Your task to perform on an android device: Open calendar and show me the fourth week of next month Image 0: 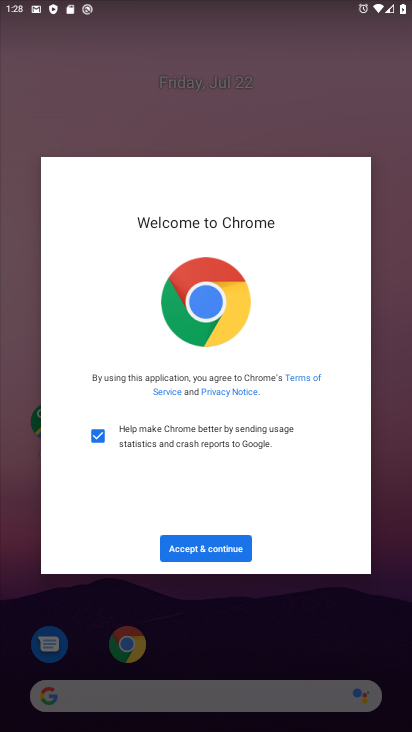
Step 0: press home button
Your task to perform on an android device: Open calendar and show me the fourth week of next month Image 1: 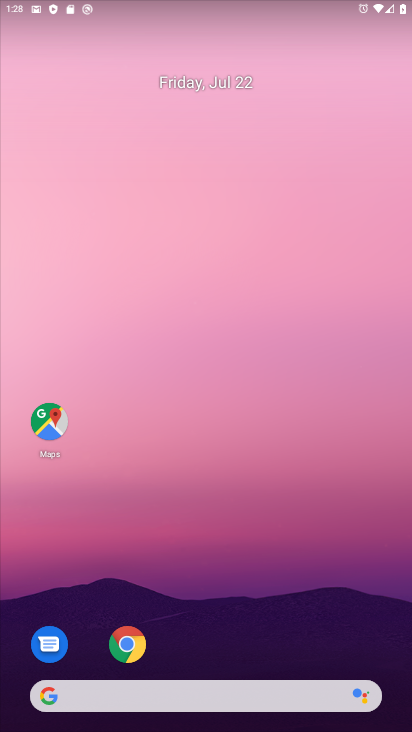
Step 1: drag from (207, 655) to (204, 148)
Your task to perform on an android device: Open calendar and show me the fourth week of next month Image 2: 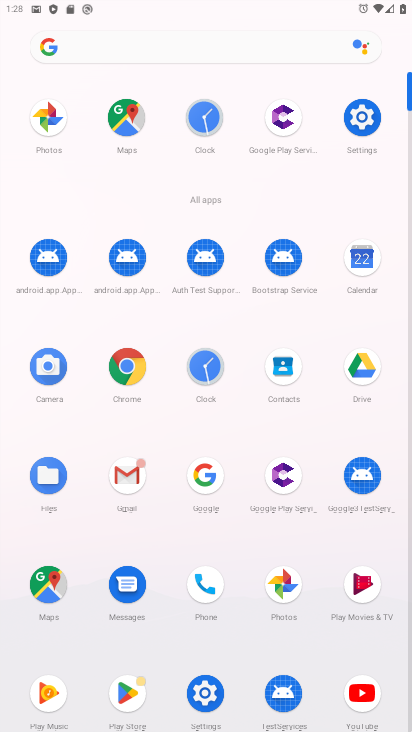
Step 2: click (368, 258)
Your task to perform on an android device: Open calendar and show me the fourth week of next month Image 3: 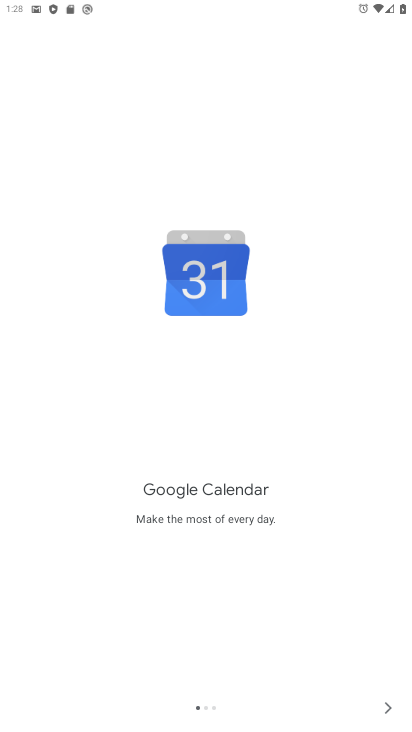
Step 3: click (386, 715)
Your task to perform on an android device: Open calendar and show me the fourth week of next month Image 4: 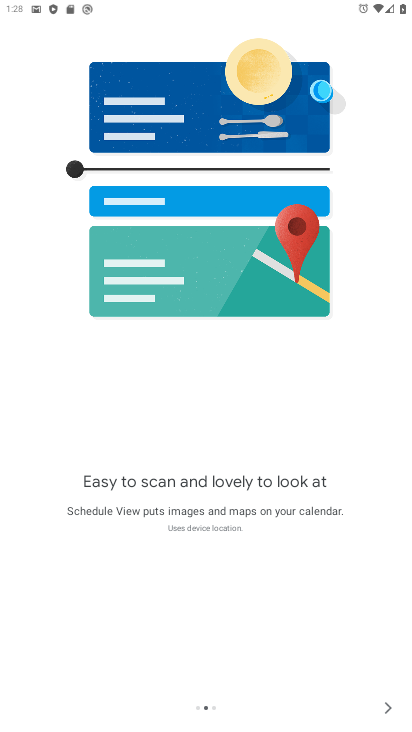
Step 4: click (381, 704)
Your task to perform on an android device: Open calendar and show me the fourth week of next month Image 5: 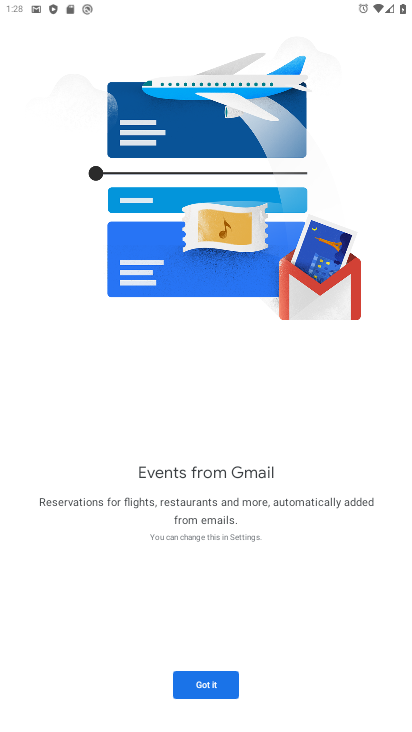
Step 5: click (211, 686)
Your task to perform on an android device: Open calendar and show me the fourth week of next month Image 6: 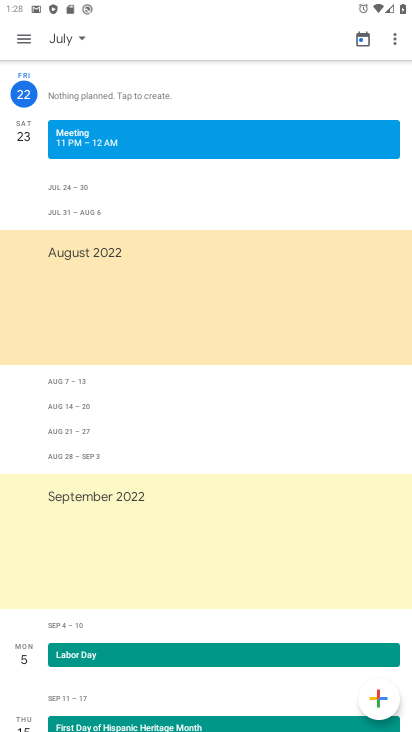
Step 6: click (72, 42)
Your task to perform on an android device: Open calendar and show me the fourth week of next month Image 7: 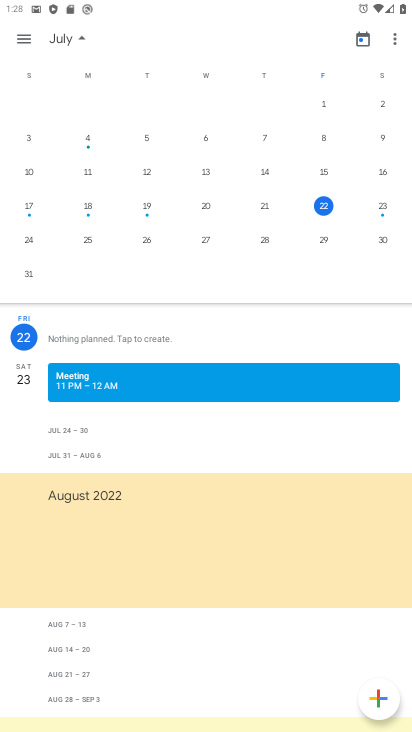
Step 7: drag from (374, 261) to (0, 253)
Your task to perform on an android device: Open calendar and show me the fourth week of next month Image 8: 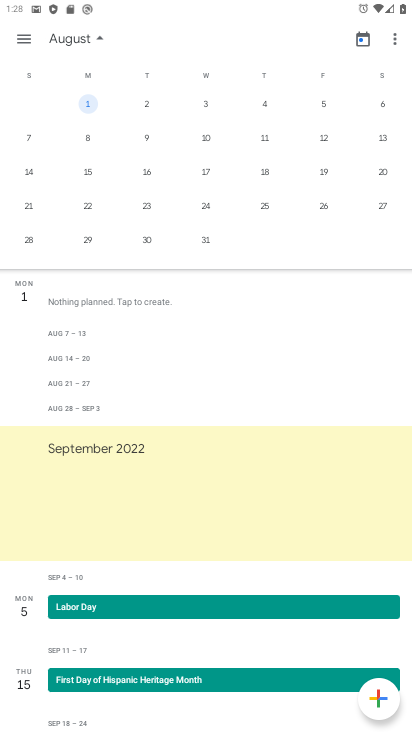
Step 8: click (203, 210)
Your task to perform on an android device: Open calendar and show me the fourth week of next month Image 9: 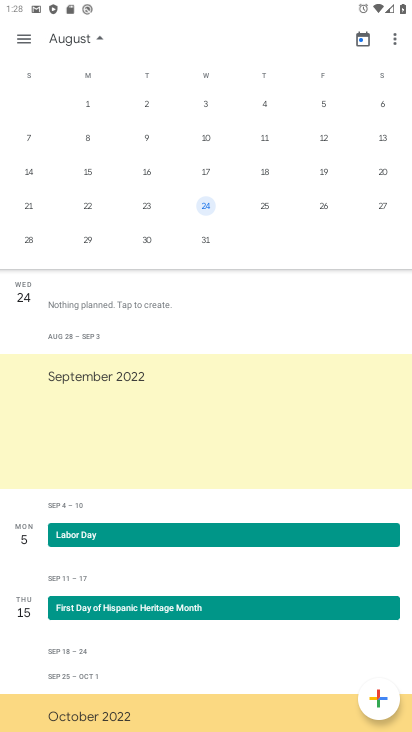
Step 9: task complete